Your task to perform on an android device: set an alarm Image 0: 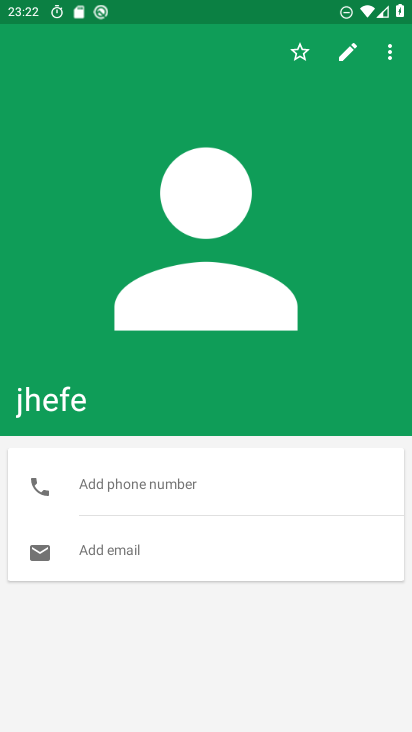
Step 0: press home button
Your task to perform on an android device: set an alarm Image 1: 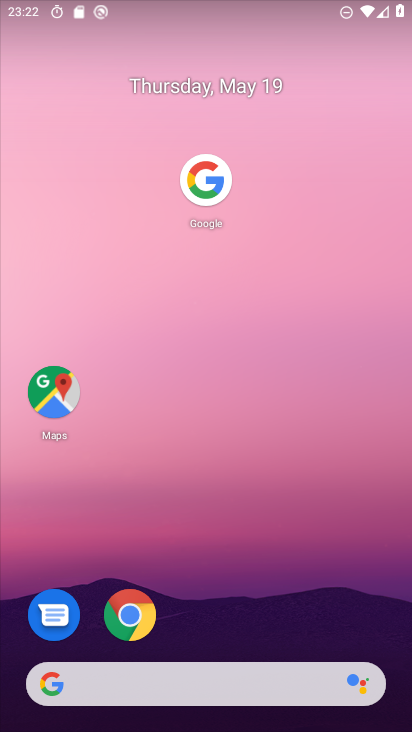
Step 1: drag from (254, 560) to (279, 35)
Your task to perform on an android device: set an alarm Image 2: 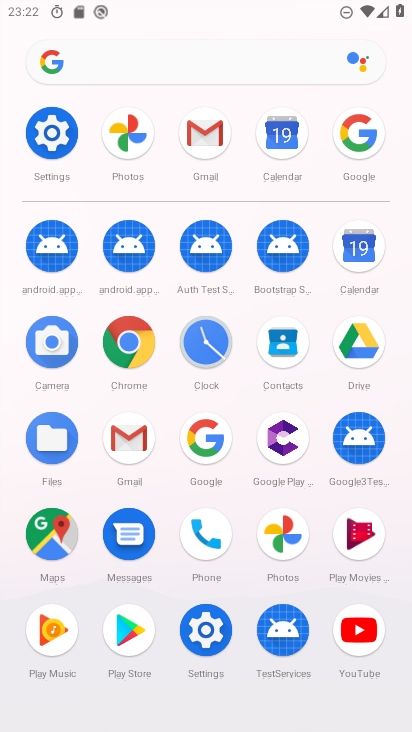
Step 2: click (189, 335)
Your task to perform on an android device: set an alarm Image 3: 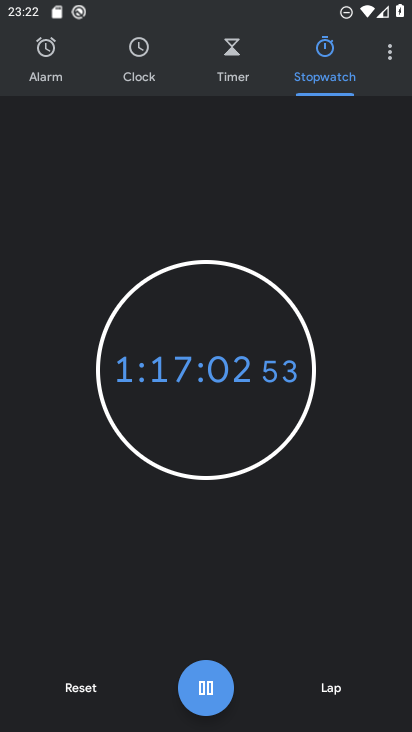
Step 3: click (58, 57)
Your task to perform on an android device: set an alarm Image 4: 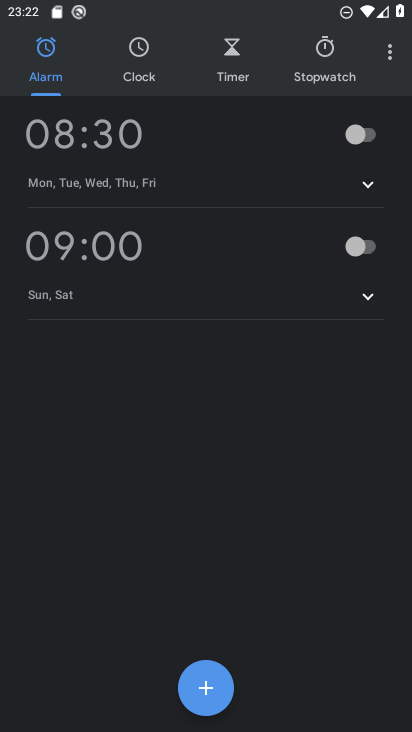
Step 4: click (361, 142)
Your task to perform on an android device: set an alarm Image 5: 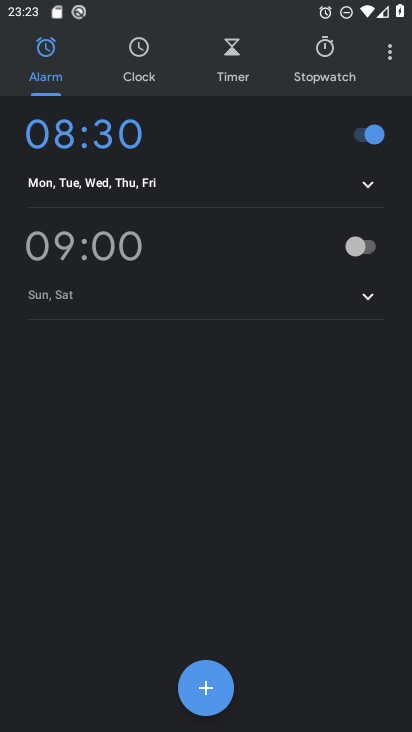
Step 5: task complete